Your task to perform on an android device: How do I get to the nearest McDonalds? Image 0: 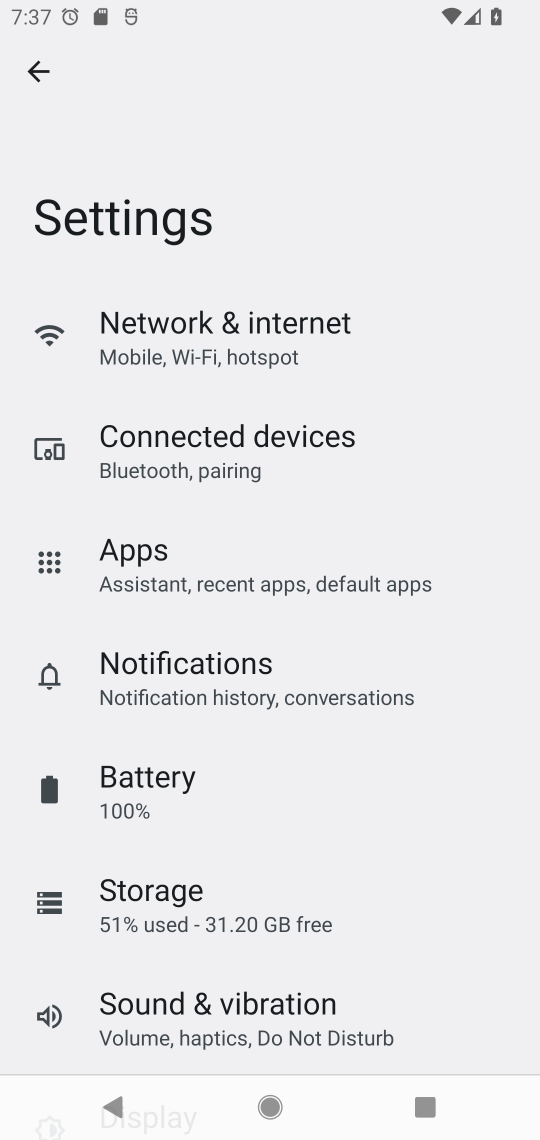
Step 0: press home button
Your task to perform on an android device: How do I get to the nearest McDonalds? Image 1: 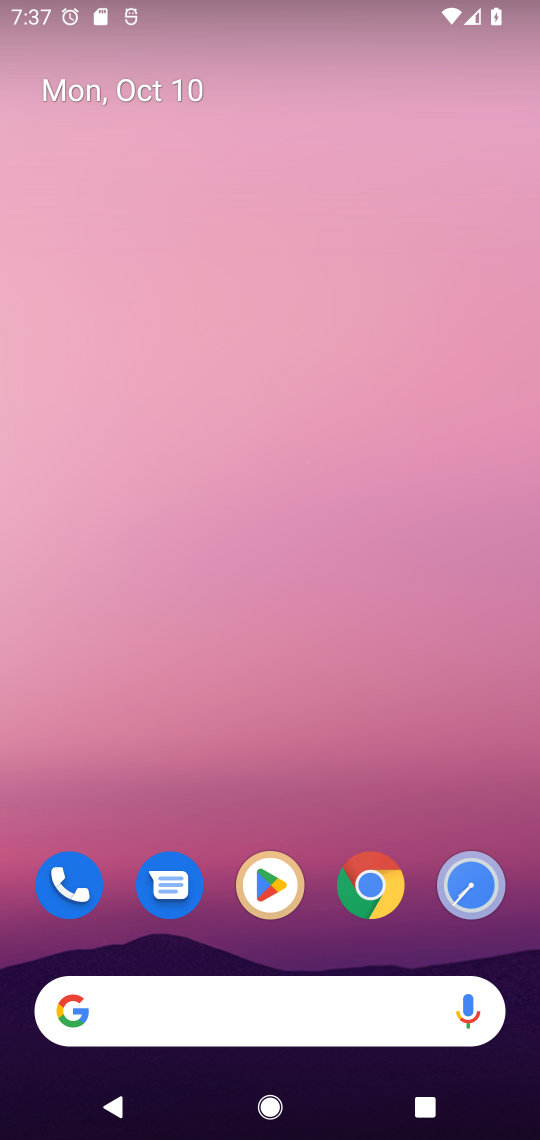
Step 1: click (393, 876)
Your task to perform on an android device: How do I get to the nearest McDonalds? Image 2: 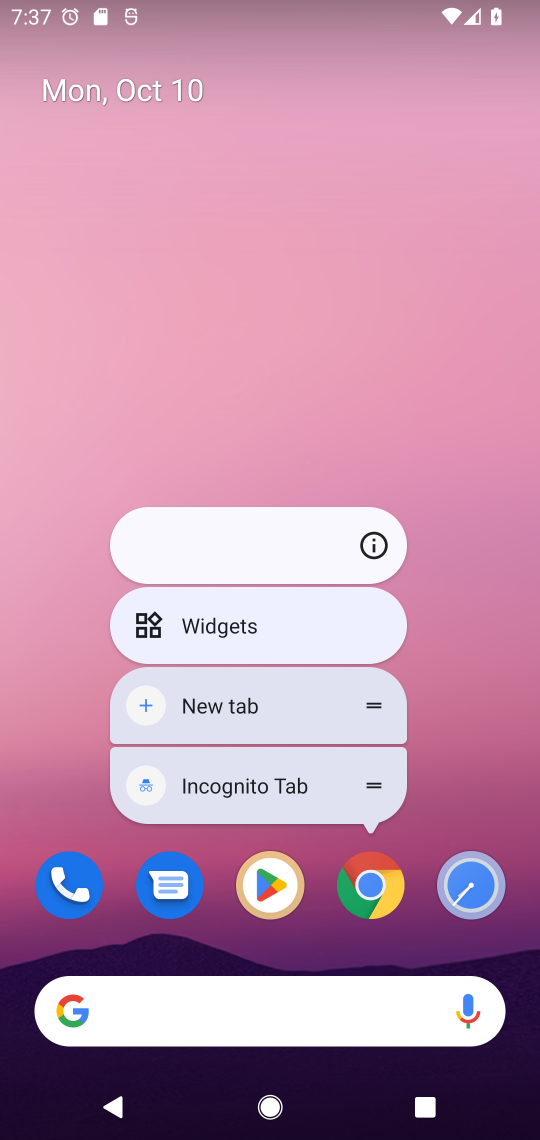
Step 2: click (380, 882)
Your task to perform on an android device: How do I get to the nearest McDonalds? Image 3: 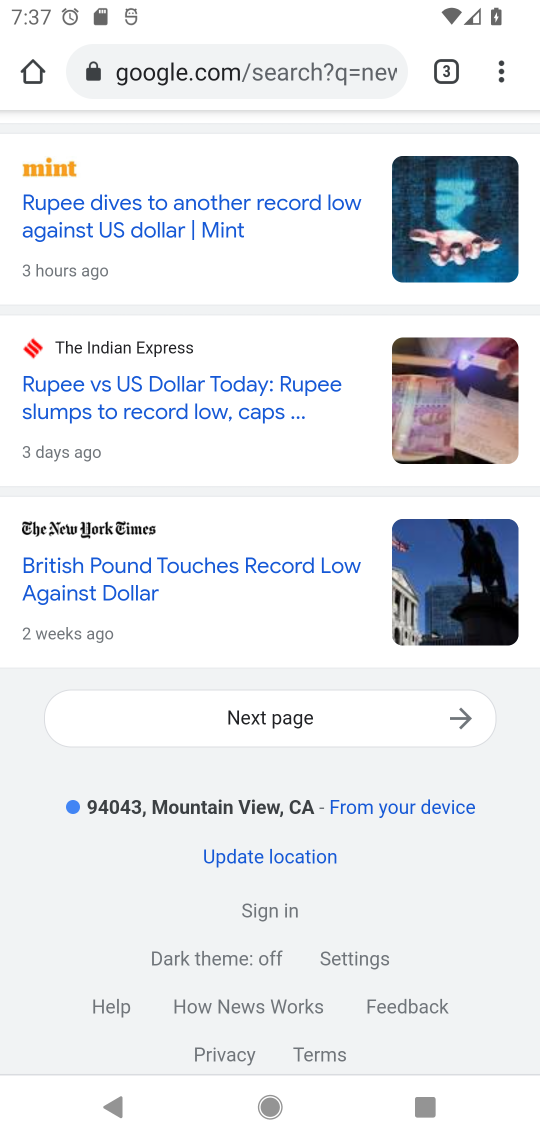
Step 3: click (283, 80)
Your task to perform on an android device: How do I get to the nearest McDonalds? Image 4: 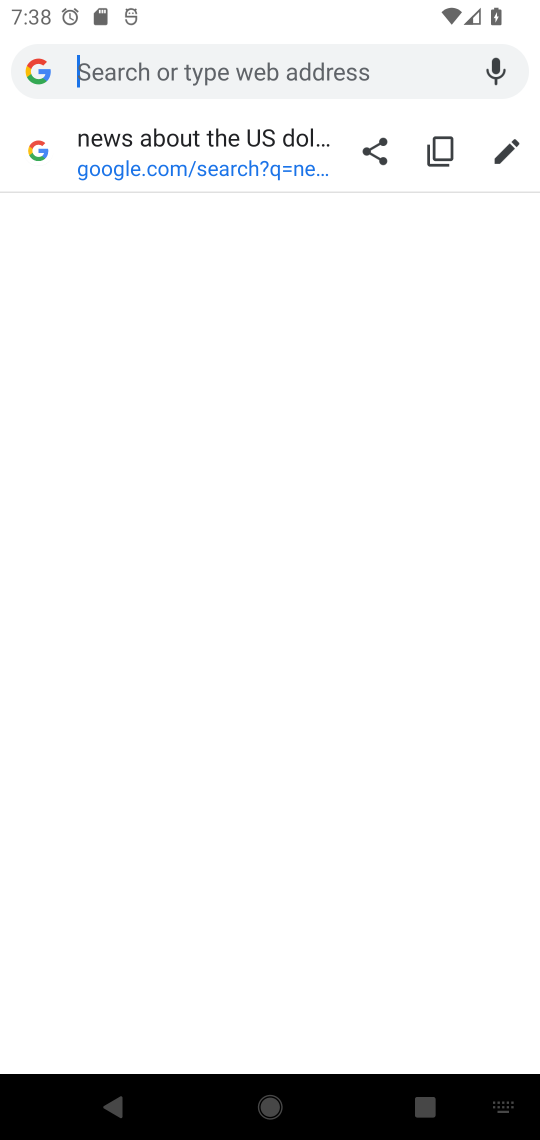
Step 4: type "nearest McDonalds"
Your task to perform on an android device: How do I get to the nearest McDonalds? Image 5: 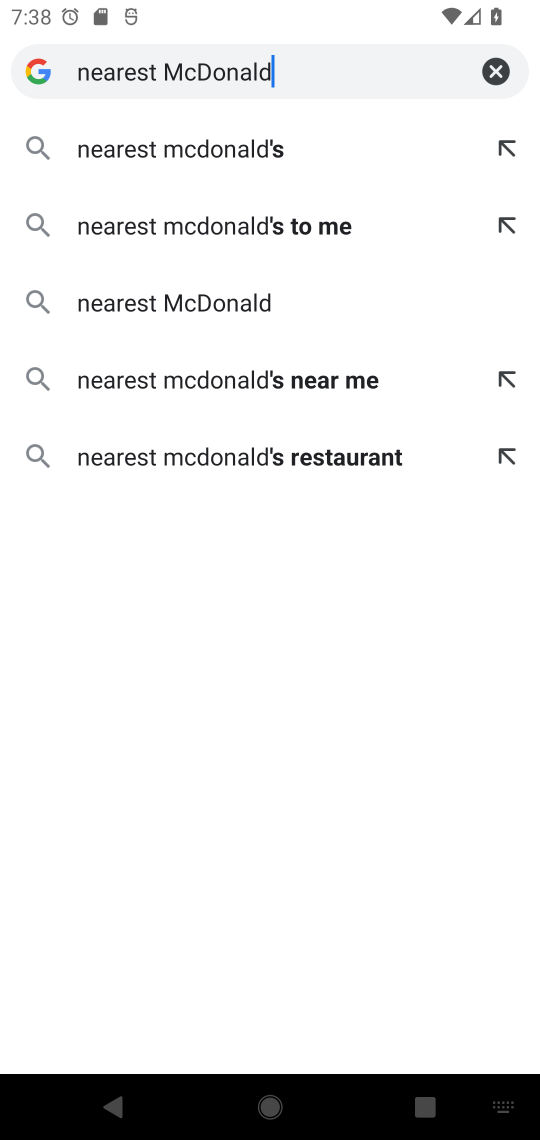
Step 5: type ""
Your task to perform on an android device: How do I get to the nearest McDonalds? Image 6: 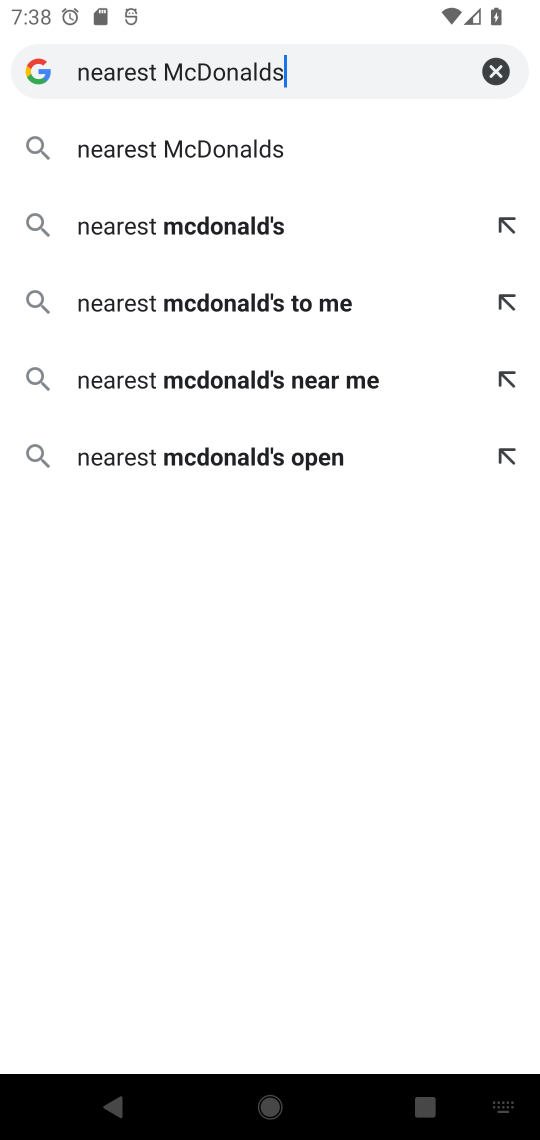
Step 6: click (103, 144)
Your task to perform on an android device: How do I get to the nearest McDonalds? Image 7: 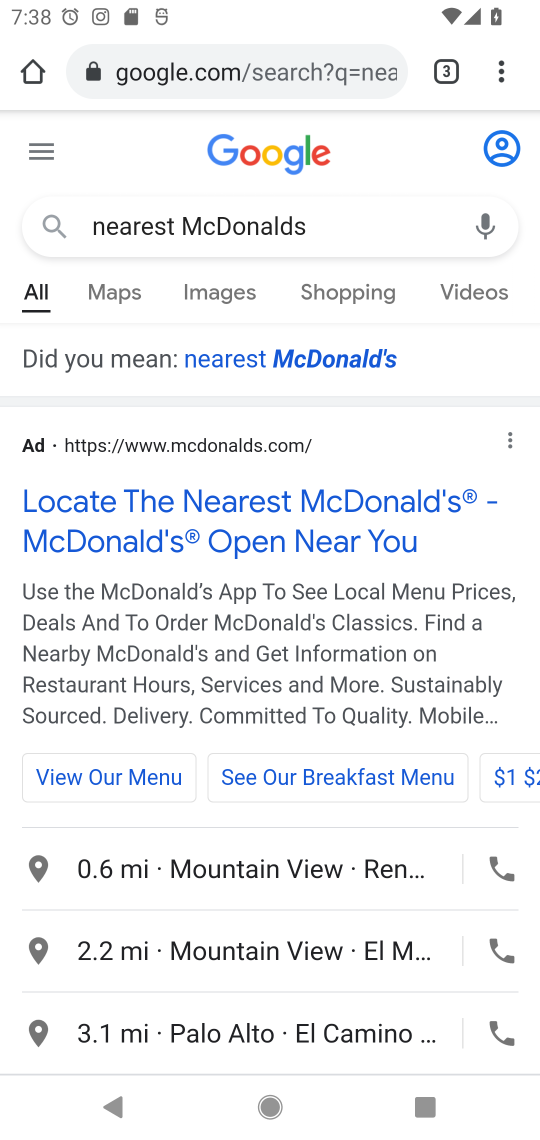
Step 7: task complete